Your task to perform on an android device: Open the calendar app, open the side menu, and click the "Day" option Image 0: 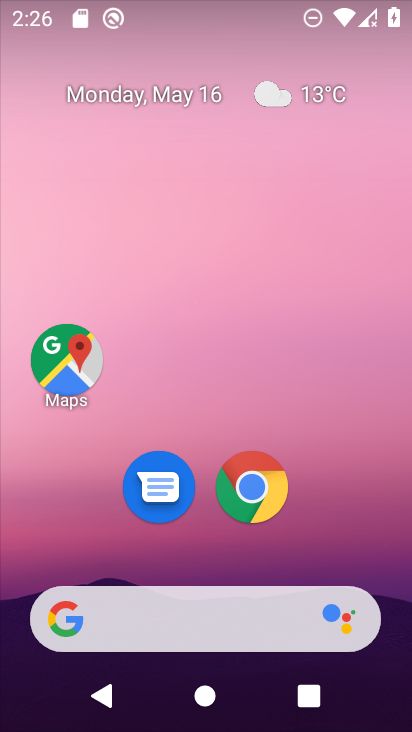
Step 0: click (240, 474)
Your task to perform on an android device: Open the calendar app, open the side menu, and click the "Day" option Image 1: 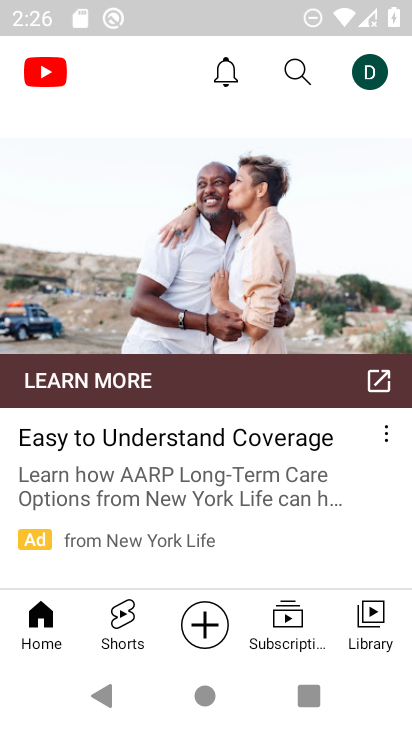
Step 1: click (297, 72)
Your task to perform on an android device: Open the calendar app, open the side menu, and click the "Day" option Image 2: 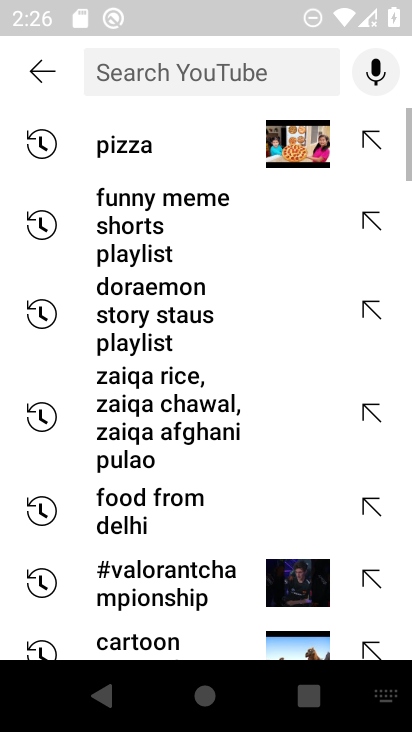
Step 2: click (151, 72)
Your task to perform on an android device: Open the calendar app, open the side menu, and click the "Day" option Image 3: 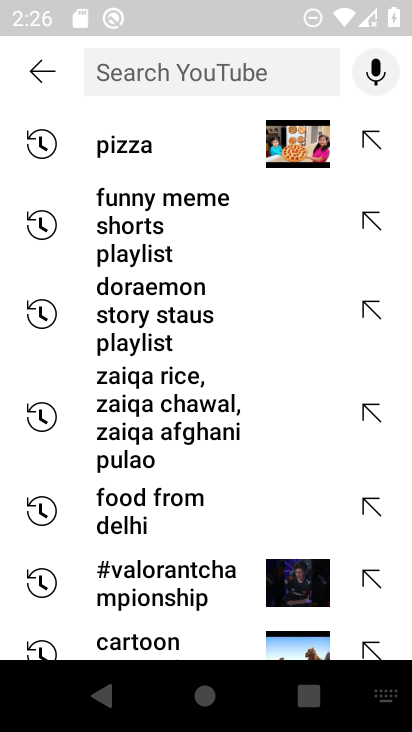
Step 3: press back button
Your task to perform on an android device: Open the calendar app, open the side menu, and click the "Day" option Image 4: 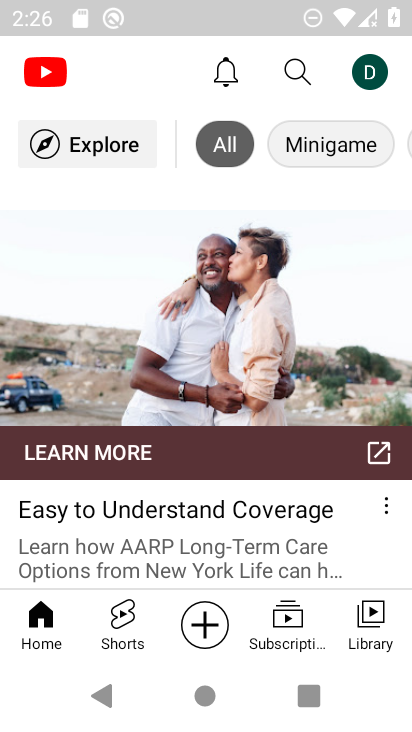
Step 4: press back button
Your task to perform on an android device: Open the calendar app, open the side menu, and click the "Day" option Image 5: 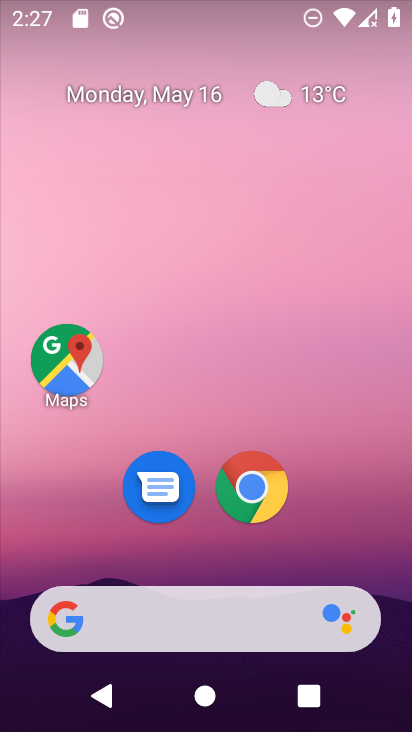
Step 5: click (409, 169)
Your task to perform on an android device: Open the calendar app, open the side menu, and click the "Day" option Image 6: 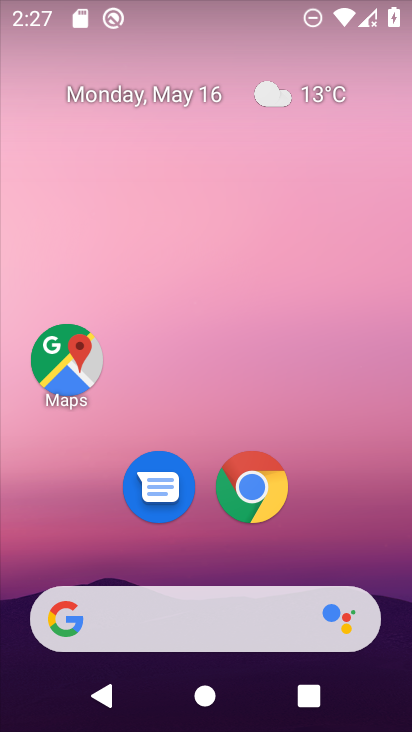
Step 6: drag from (390, 457) to (366, 236)
Your task to perform on an android device: Open the calendar app, open the side menu, and click the "Day" option Image 7: 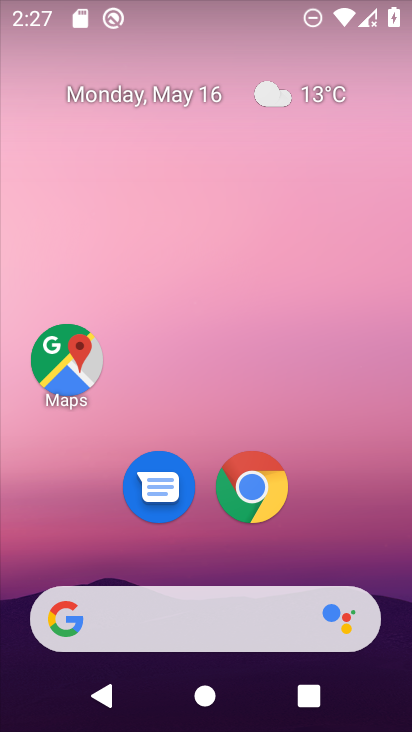
Step 7: click (340, 192)
Your task to perform on an android device: Open the calendar app, open the side menu, and click the "Day" option Image 8: 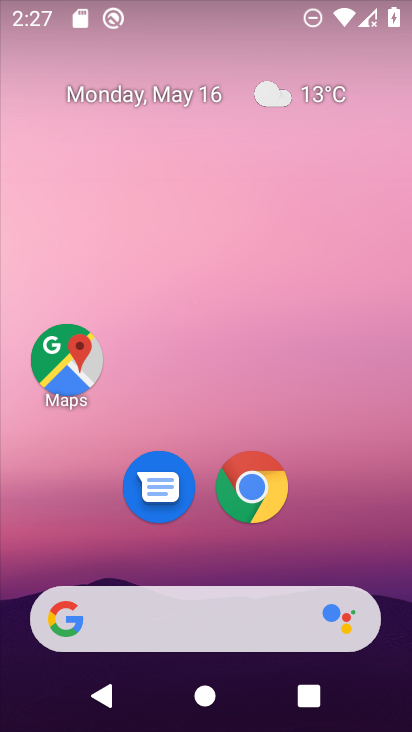
Step 8: click (409, 314)
Your task to perform on an android device: Open the calendar app, open the side menu, and click the "Day" option Image 9: 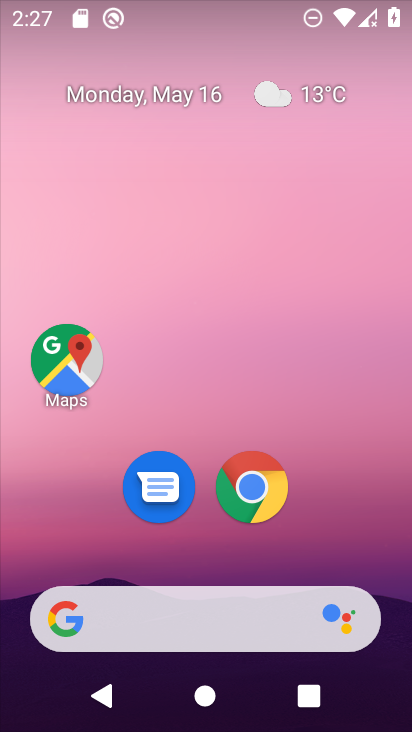
Step 9: click (396, 219)
Your task to perform on an android device: Open the calendar app, open the side menu, and click the "Day" option Image 10: 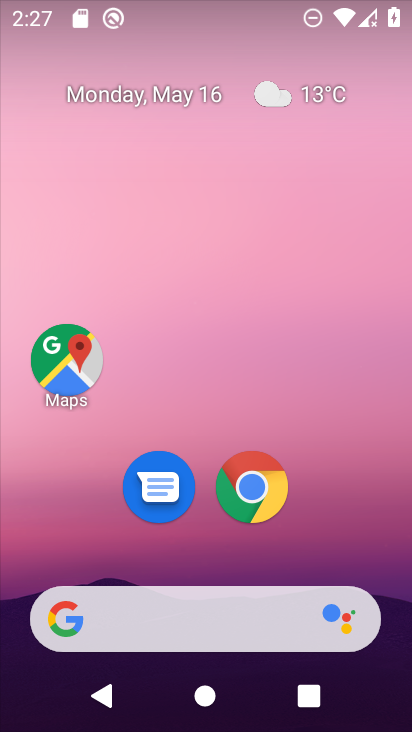
Step 10: drag from (411, 80) to (378, 144)
Your task to perform on an android device: Open the calendar app, open the side menu, and click the "Day" option Image 11: 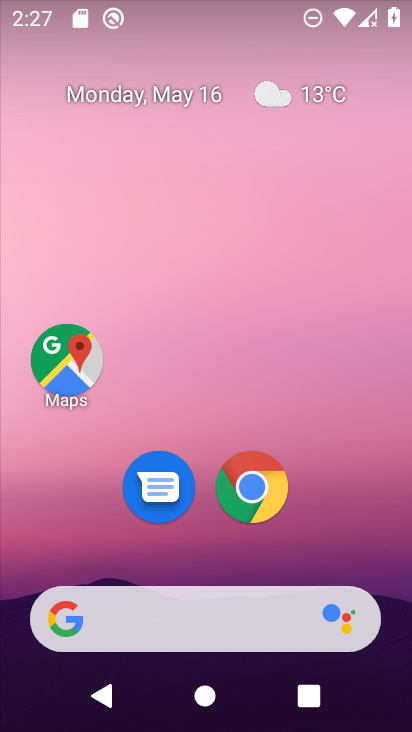
Step 11: click (372, 177)
Your task to perform on an android device: Open the calendar app, open the side menu, and click the "Day" option Image 12: 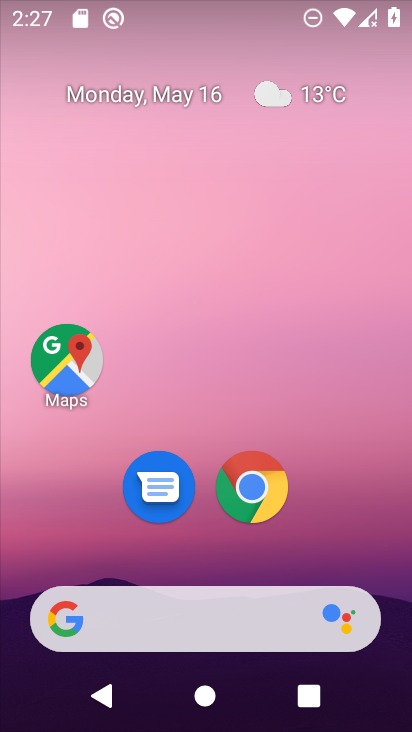
Step 12: drag from (401, 170) to (390, 104)
Your task to perform on an android device: Open the calendar app, open the side menu, and click the "Day" option Image 13: 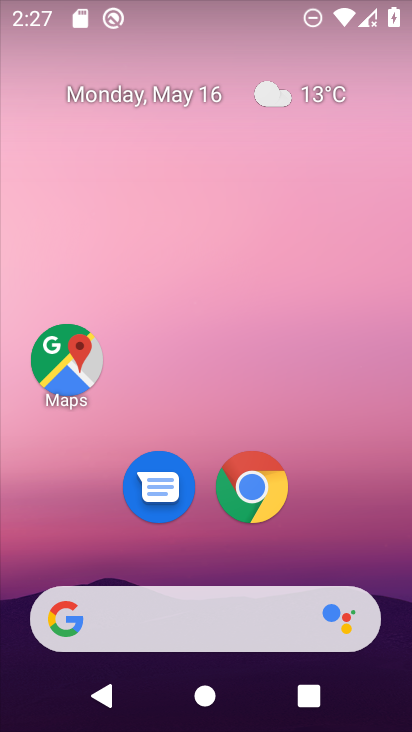
Step 13: drag from (305, 569) to (324, 191)
Your task to perform on an android device: Open the calendar app, open the side menu, and click the "Day" option Image 14: 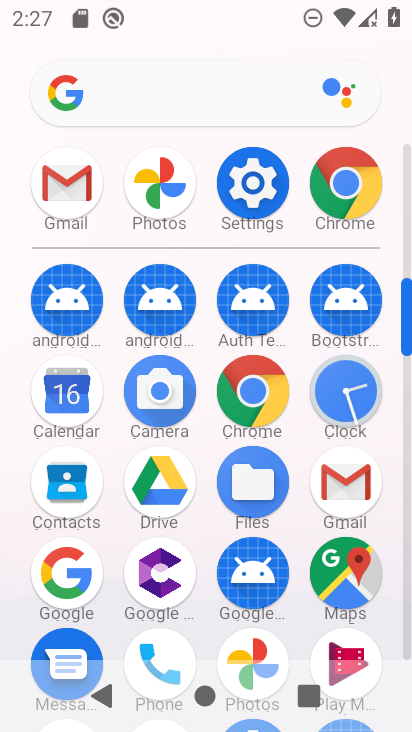
Step 14: click (60, 399)
Your task to perform on an android device: Open the calendar app, open the side menu, and click the "Day" option Image 15: 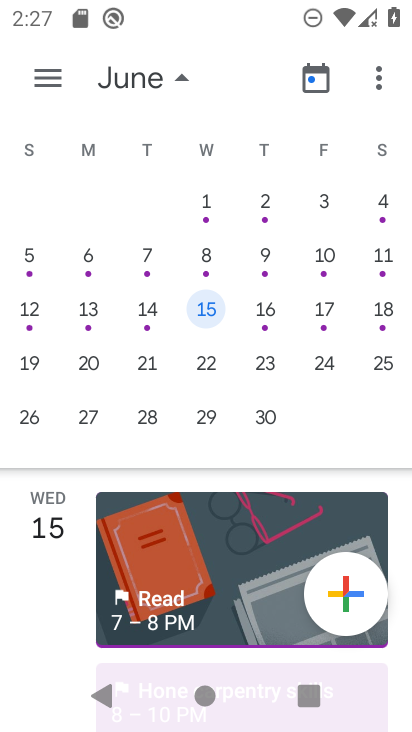
Step 15: click (42, 76)
Your task to perform on an android device: Open the calendar app, open the side menu, and click the "Day" option Image 16: 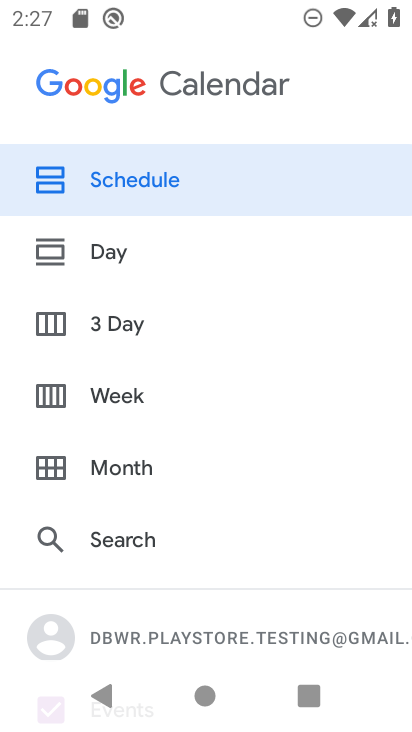
Step 16: click (89, 189)
Your task to perform on an android device: Open the calendar app, open the side menu, and click the "Day" option Image 17: 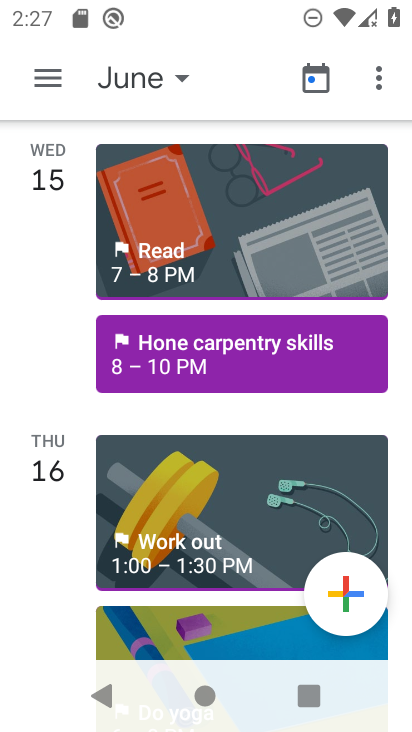
Step 17: click (178, 79)
Your task to perform on an android device: Open the calendar app, open the side menu, and click the "Day" option Image 18: 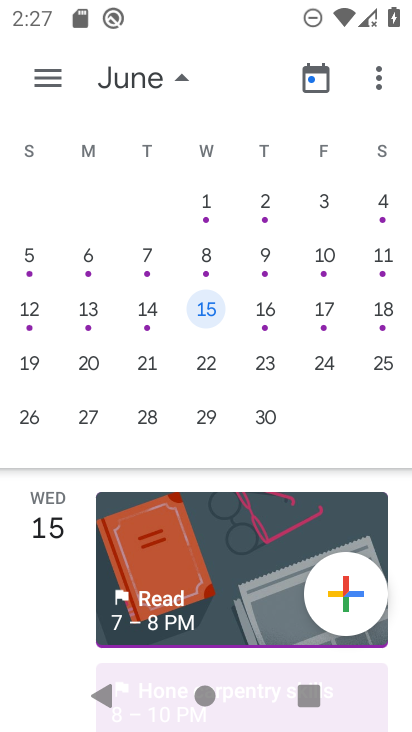
Step 18: drag from (6, 229) to (410, 229)
Your task to perform on an android device: Open the calendar app, open the side menu, and click the "Day" option Image 19: 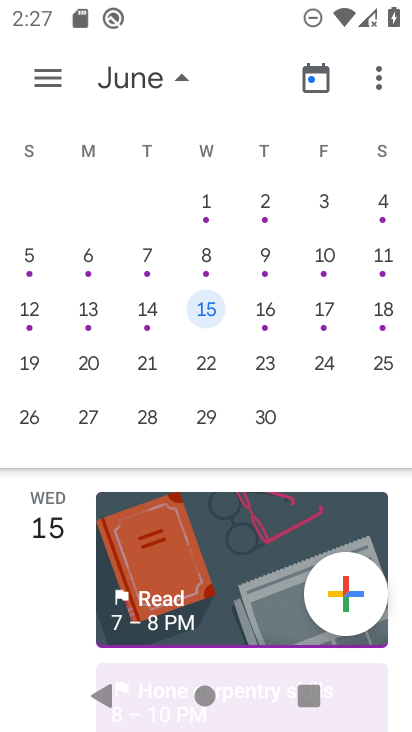
Step 19: click (370, 400)
Your task to perform on an android device: Open the calendar app, open the side menu, and click the "Day" option Image 20: 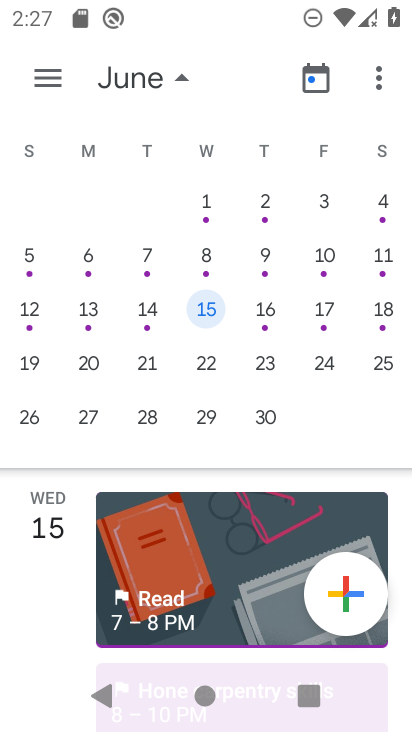
Step 20: drag from (23, 211) to (406, 253)
Your task to perform on an android device: Open the calendar app, open the side menu, and click the "Day" option Image 21: 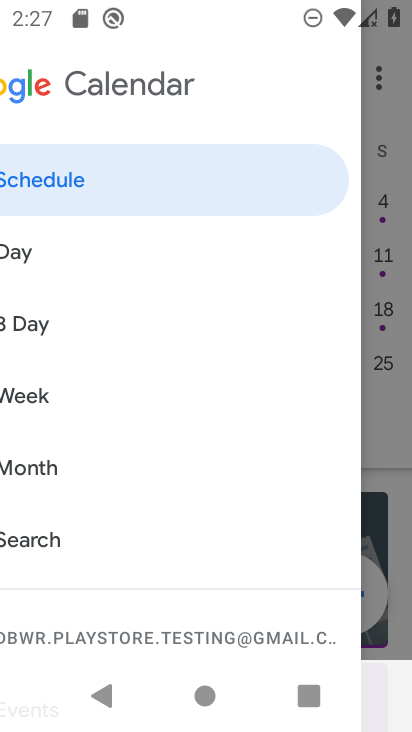
Step 21: click (389, 307)
Your task to perform on an android device: Open the calendar app, open the side menu, and click the "Day" option Image 22: 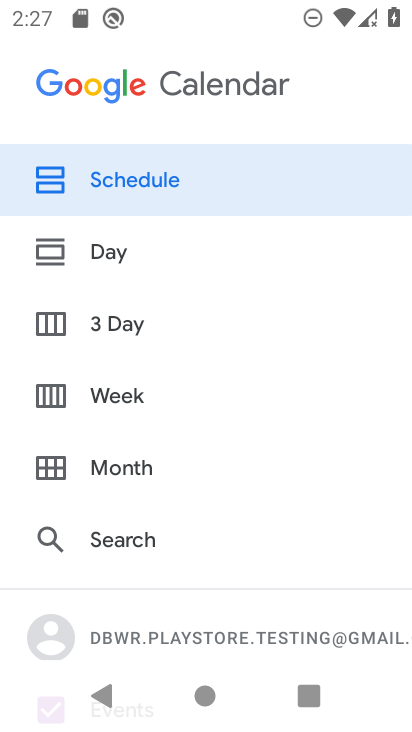
Step 22: click (302, 199)
Your task to perform on an android device: Open the calendar app, open the side menu, and click the "Day" option Image 23: 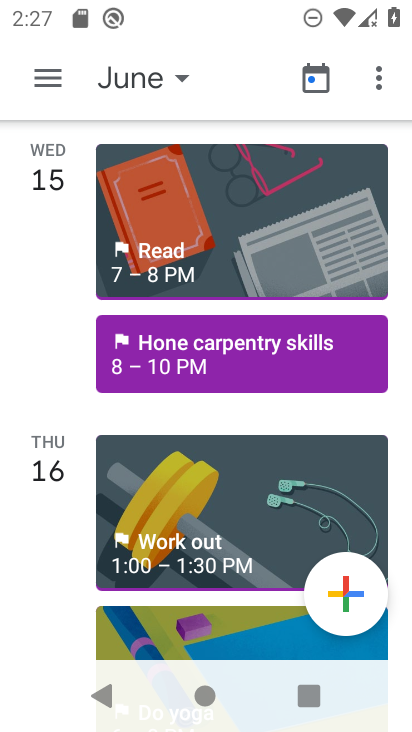
Step 23: click (186, 75)
Your task to perform on an android device: Open the calendar app, open the side menu, and click the "Day" option Image 24: 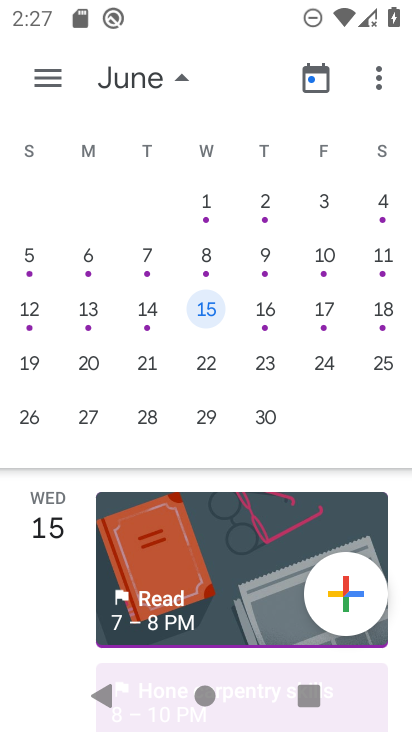
Step 24: drag from (178, 192) to (382, 177)
Your task to perform on an android device: Open the calendar app, open the side menu, and click the "Day" option Image 25: 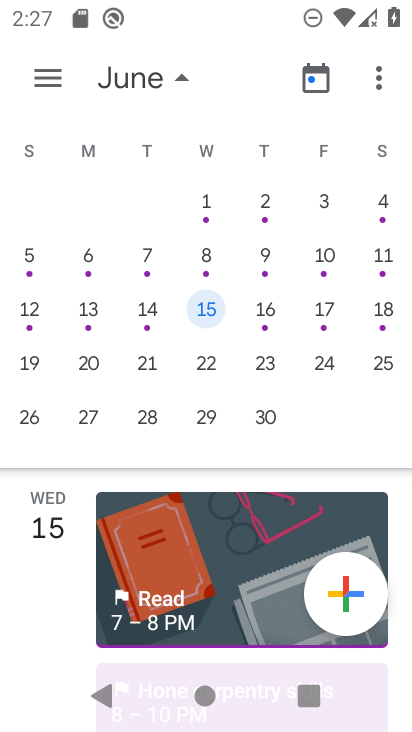
Step 25: drag from (51, 193) to (410, 172)
Your task to perform on an android device: Open the calendar app, open the side menu, and click the "Day" option Image 26: 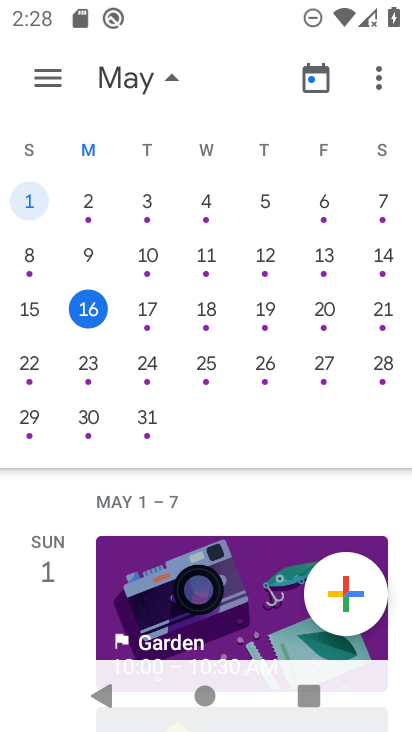
Step 26: click (52, 74)
Your task to perform on an android device: Open the calendar app, open the side menu, and click the "Day" option Image 27: 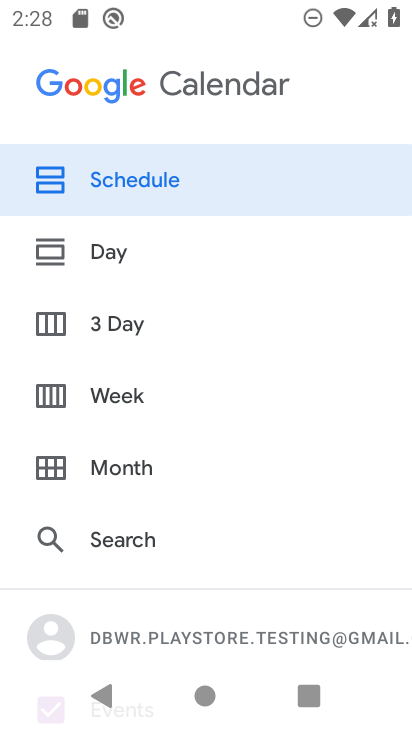
Step 27: click (105, 246)
Your task to perform on an android device: Open the calendar app, open the side menu, and click the "Day" option Image 28: 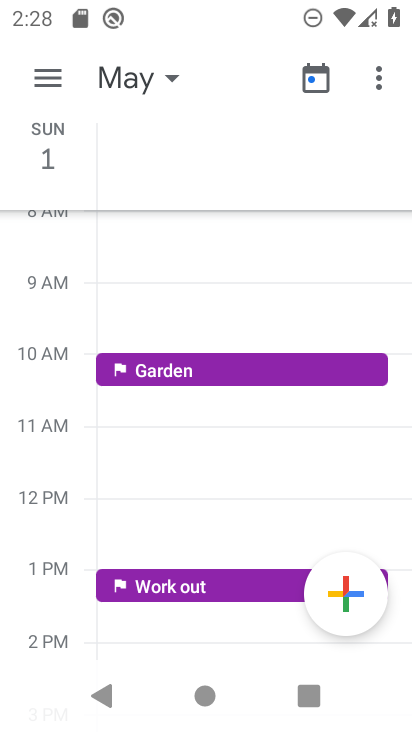
Step 28: task complete